Your task to perform on an android device: snooze an email in the gmail app Image 0: 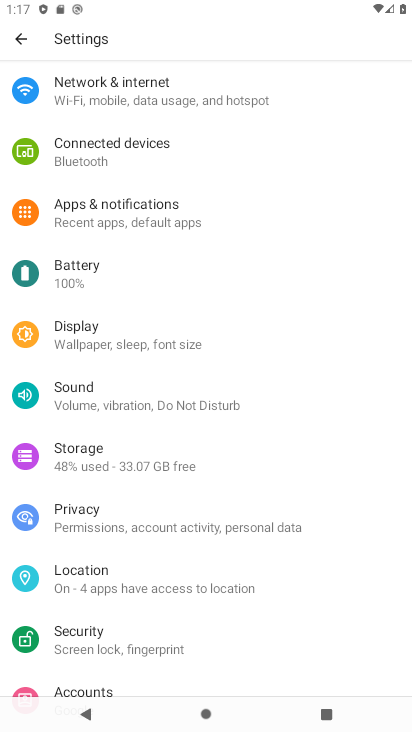
Step 0: press home button
Your task to perform on an android device: snooze an email in the gmail app Image 1: 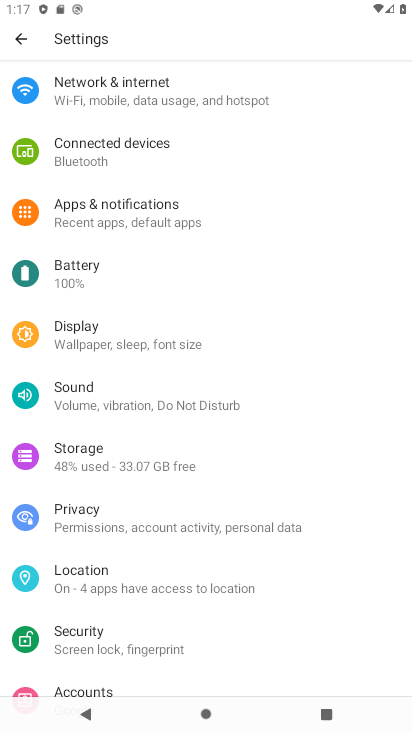
Step 1: press home button
Your task to perform on an android device: snooze an email in the gmail app Image 2: 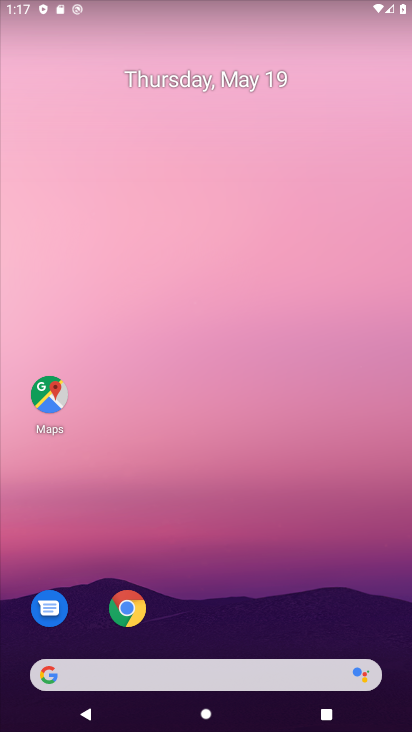
Step 2: drag from (215, 607) to (229, 88)
Your task to perform on an android device: snooze an email in the gmail app Image 3: 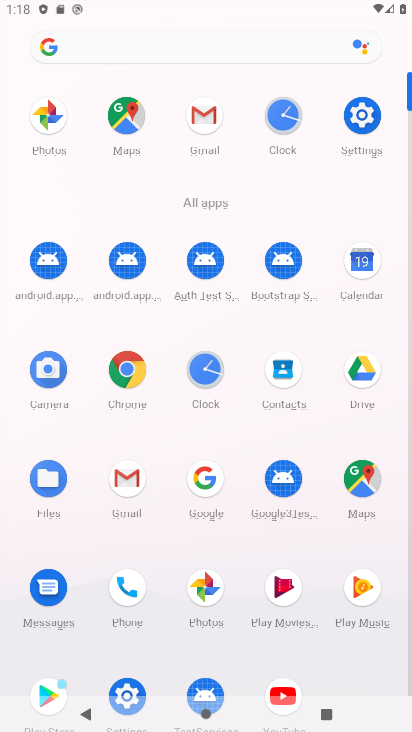
Step 3: click (202, 140)
Your task to perform on an android device: snooze an email in the gmail app Image 4: 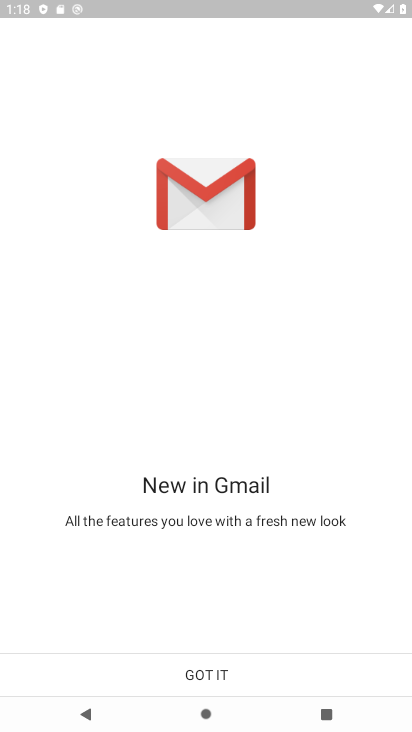
Step 4: click (210, 664)
Your task to perform on an android device: snooze an email in the gmail app Image 5: 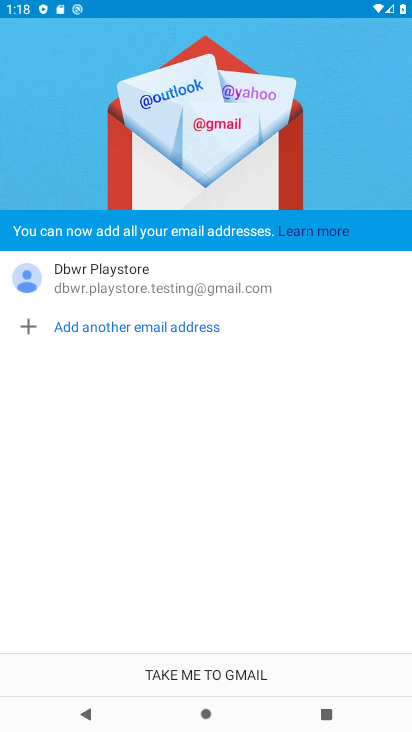
Step 5: click (210, 664)
Your task to perform on an android device: snooze an email in the gmail app Image 6: 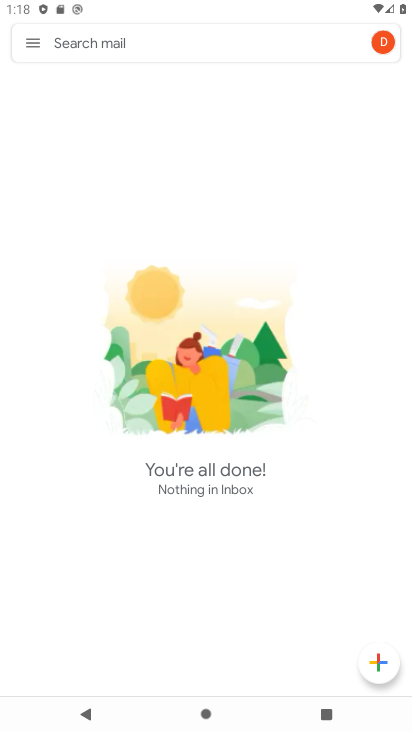
Step 6: click (19, 51)
Your task to perform on an android device: snooze an email in the gmail app Image 7: 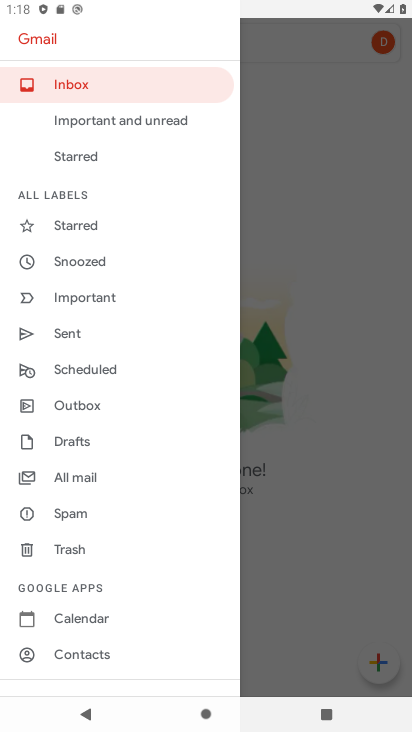
Step 7: click (42, 465)
Your task to perform on an android device: snooze an email in the gmail app Image 8: 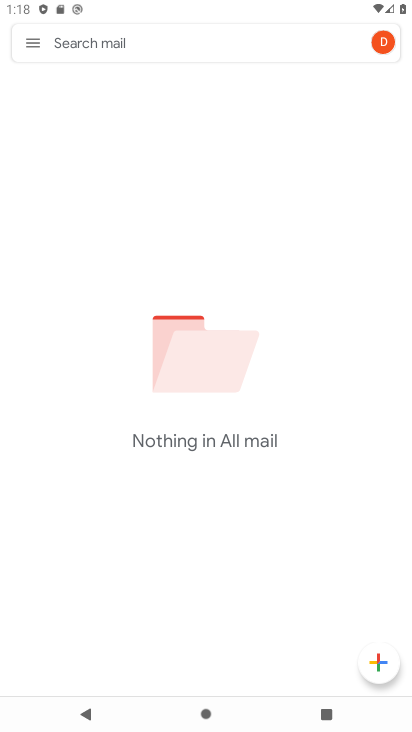
Step 8: task complete